Your task to perform on an android device: check battery use Image 0: 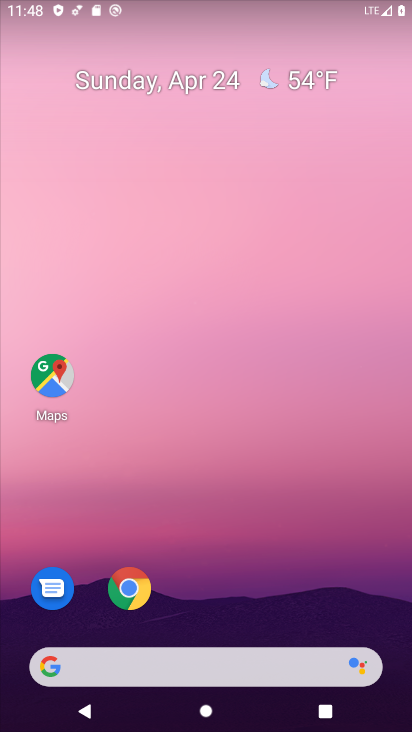
Step 0: drag from (203, 635) to (316, 89)
Your task to perform on an android device: check battery use Image 1: 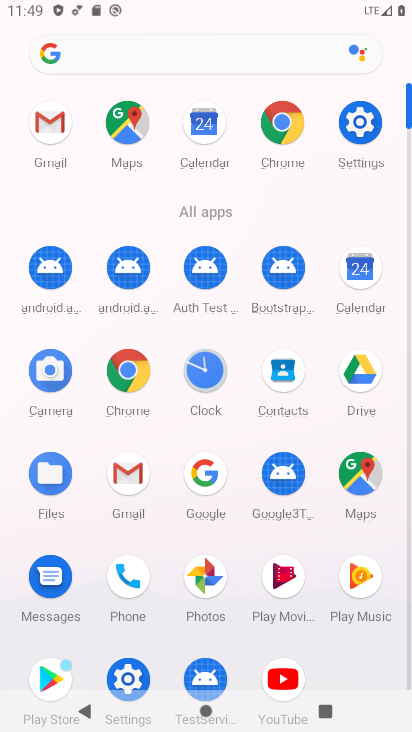
Step 1: click (125, 669)
Your task to perform on an android device: check battery use Image 2: 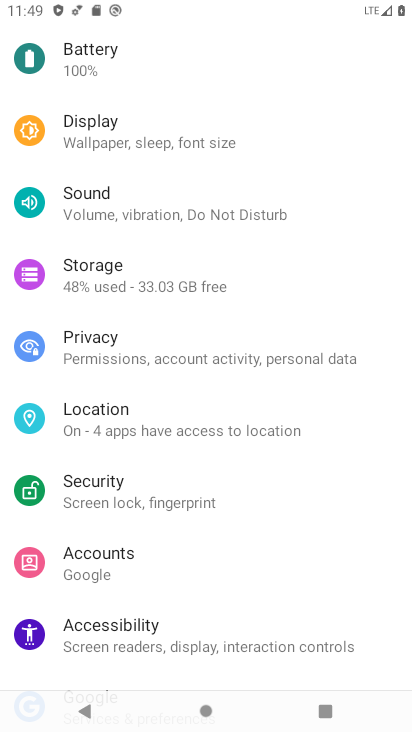
Step 2: click (100, 35)
Your task to perform on an android device: check battery use Image 3: 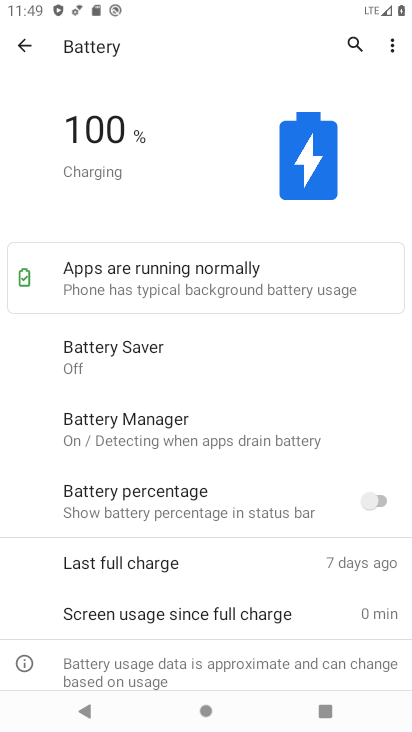
Step 3: click (383, 53)
Your task to perform on an android device: check battery use Image 4: 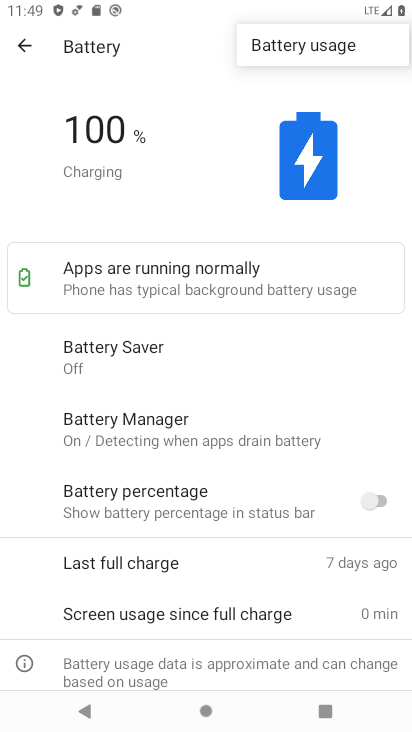
Step 4: click (293, 48)
Your task to perform on an android device: check battery use Image 5: 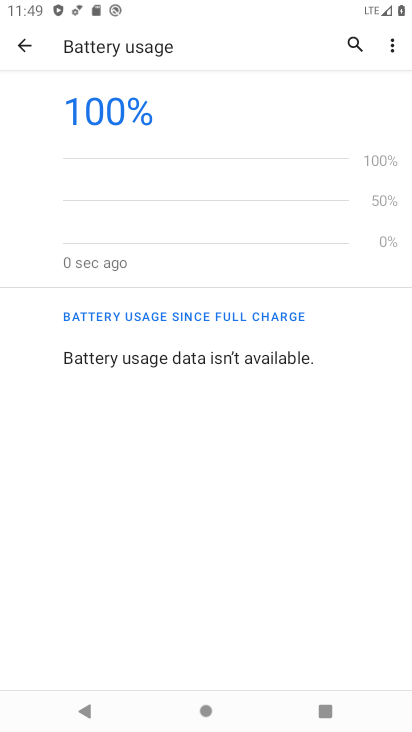
Step 5: task complete